Your task to perform on an android device: What's the weather? Image 0: 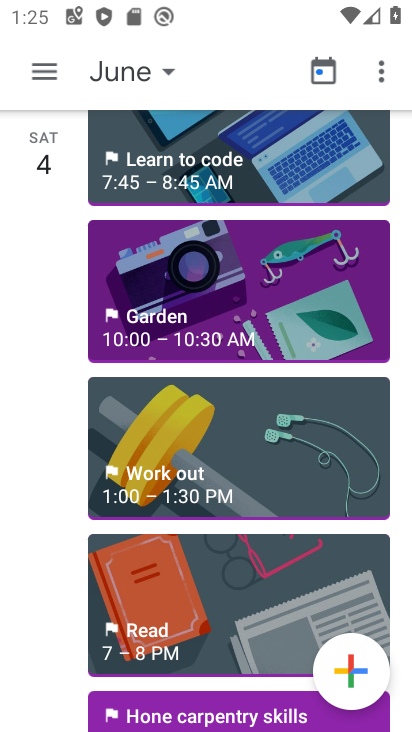
Step 0: press home button
Your task to perform on an android device: What's the weather? Image 1: 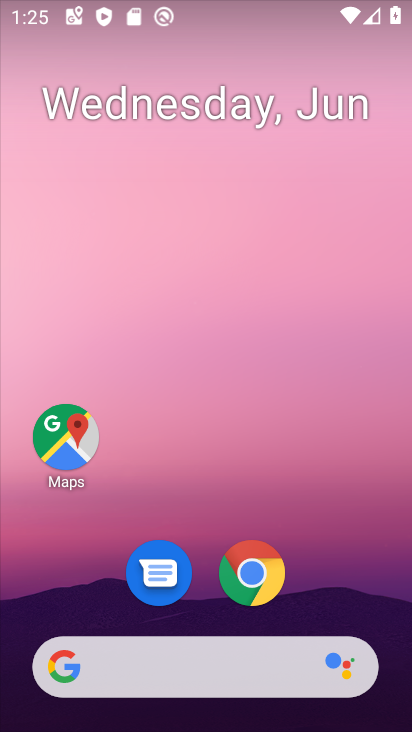
Step 1: drag from (329, 560) to (279, 199)
Your task to perform on an android device: What's the weather? Image 2: 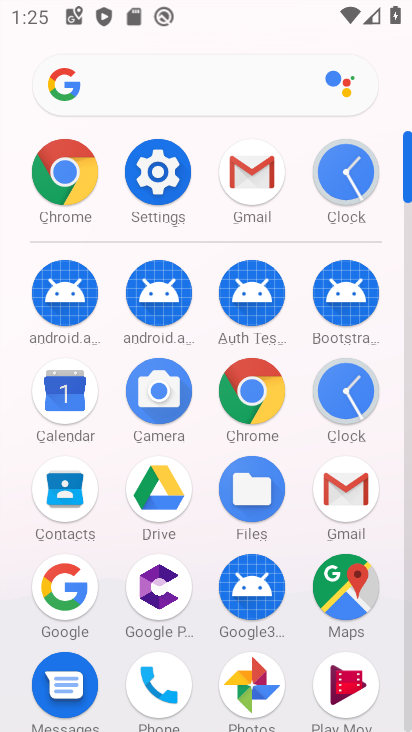
Step 2: click (92, 191)
Your task to perform on an android device: What's the weather? Image 3: 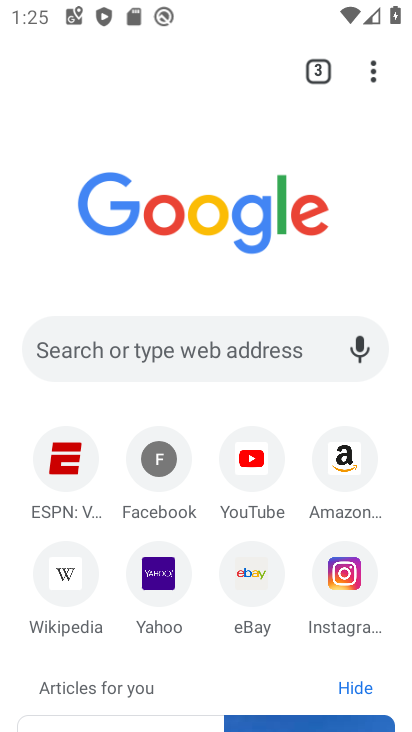
Step 3: click (202, 350)
Your task to perform on an android device: What's the weather? Image 4: 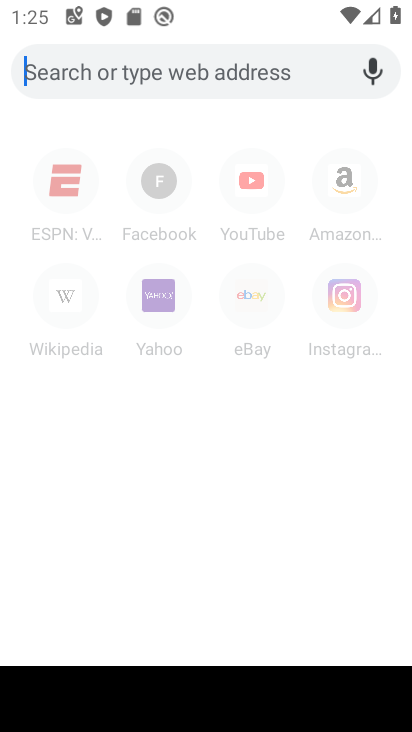
Step 4: type "what's the weather "
Your task to perform on an android device: What's the weather? Image 5: 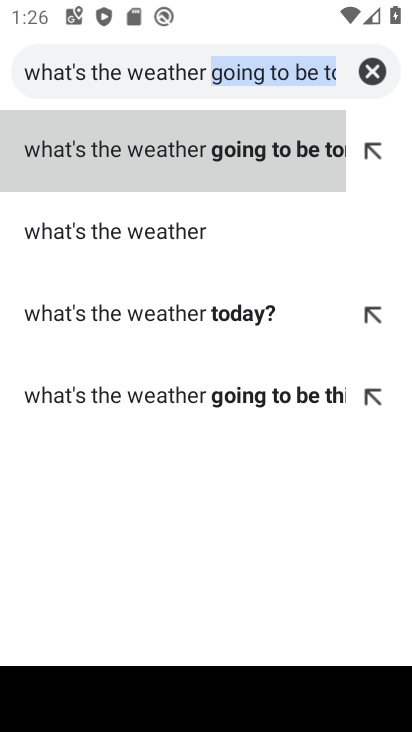
Step 5: click (211, 243)
Your task to perform on an android device: What's the weather? Image 6: 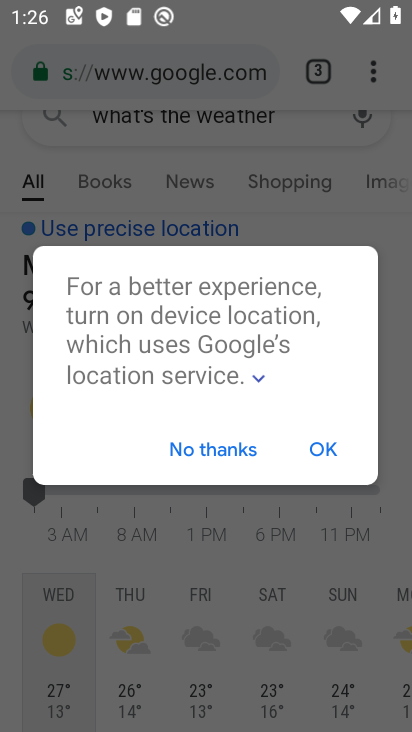
Step 6: click (319, 454)
Your task to perform on an android device: What's the weather? Image 7: 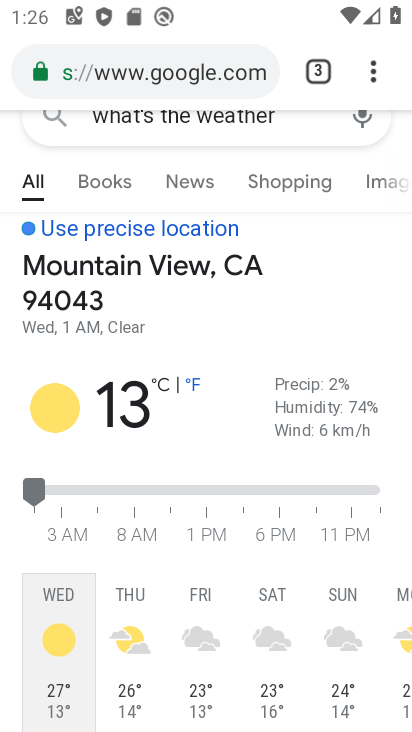
Step 7: task complete